Your task to perform on an android device: allow cookies in the chrome app Image 0: 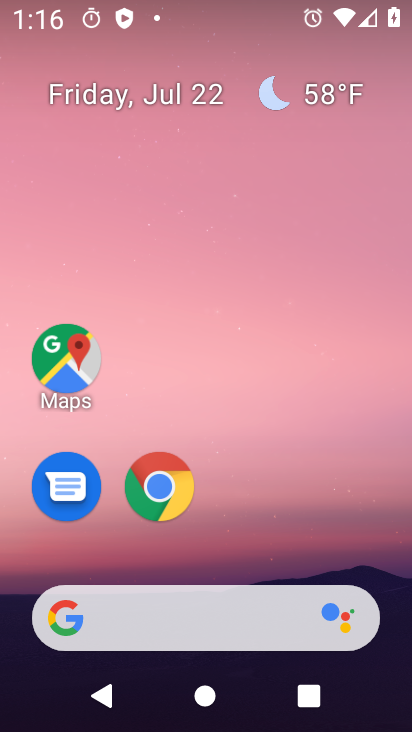
Step 0: drag from (320, 549) to (342, 88)
Your task to perform on an android device: allow cookies in the chrome app Image 1: 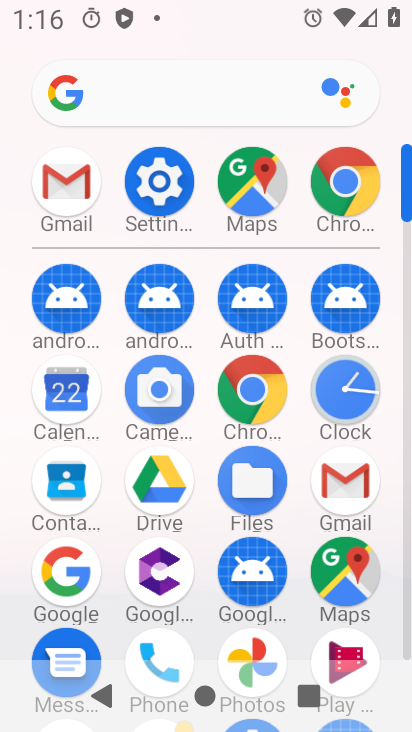
Step 1: click (265, 387)
Your task to perform on an android device: allow cookies in the chrome app Image 2: 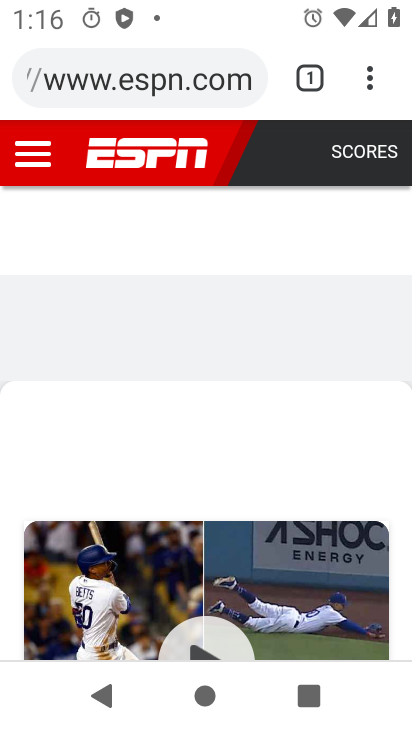
Step 2: click (371, 86)
Your task to perform on an android device: allow cookies in the chrome app Image 3: 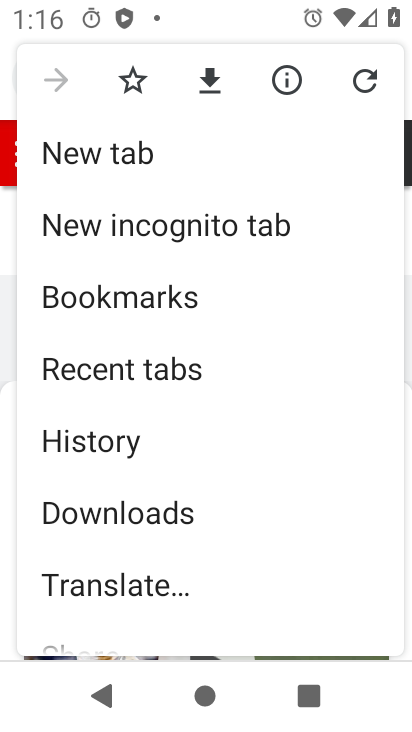
Step 3: drag from (297, 403) to (297, 350)
Your task to perform on an android device: allow cookies in the chrome app Image 4: 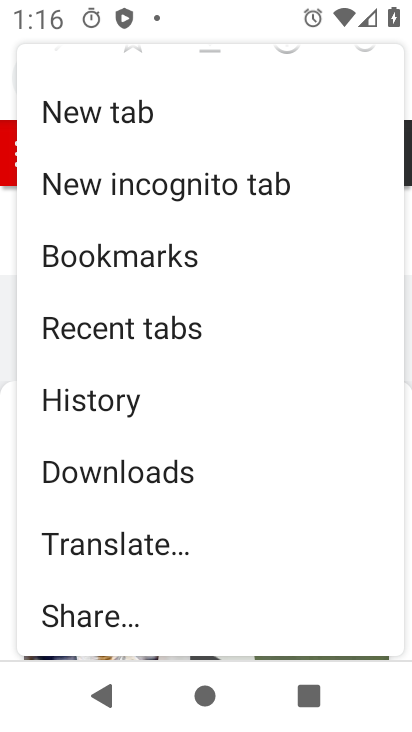
Step 4: drag from (293, 482) to (293, 343)
Your task to perform on an android device: allow cookies in the chrome app Image 5: 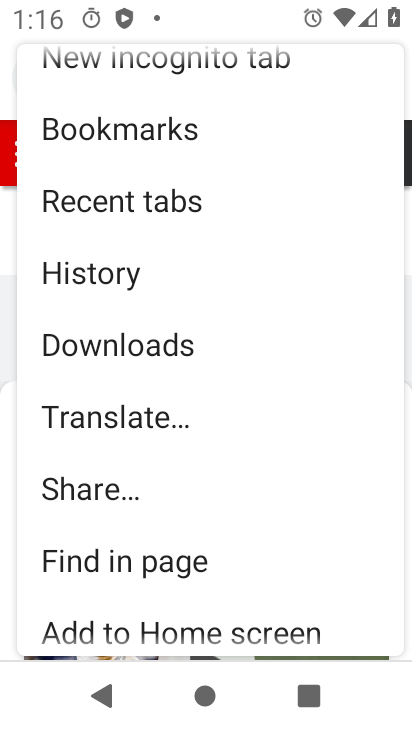
Step 5: drag from (282, 433) to (283, 346)
Your task to perform on an android device: allow cookies in the chrome app Image 6: 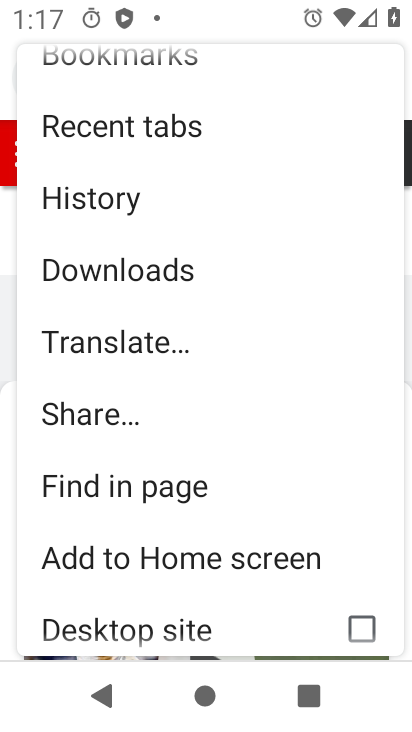
Step 6: drag from (289, 438) to (303, 323)
Your task to perform on an android device: allow cookies in the chrome app Image 7: 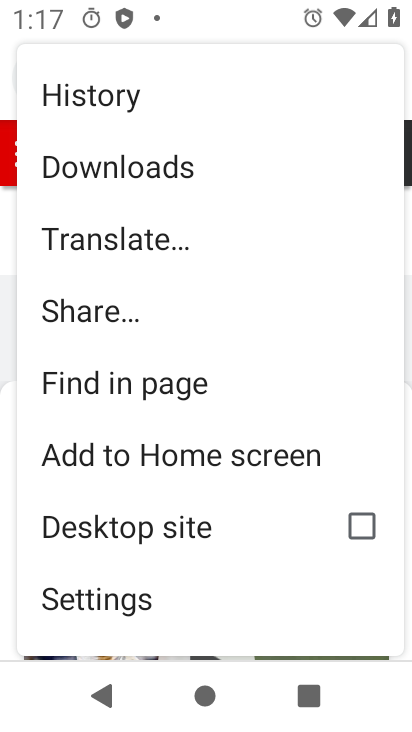
Step 7: drag from (302, 504) to (302, 305)
Your task to perform on an android device: allow cookies in the chrome app Image 8: 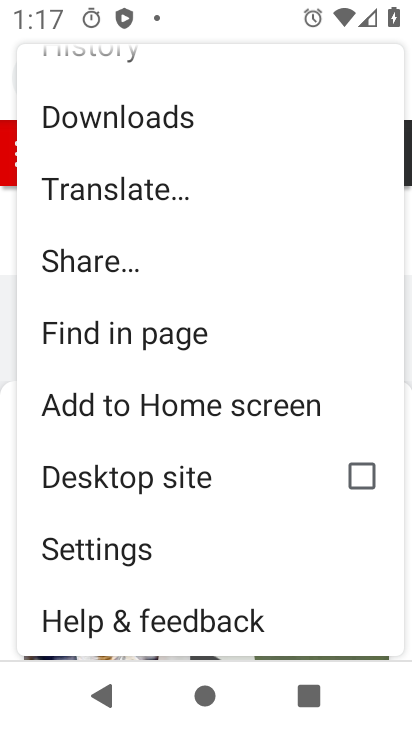
Step 8: click (237, 550)
Your task to perform on an android device: allow cookies in the chrome app Image 9: 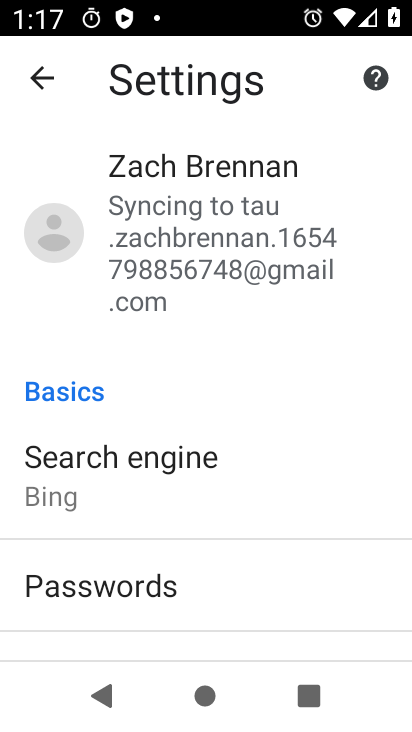
Step 9: drag from (273, 549) to (289, 451)
Your task to perform on an android device: allow cookies in the chrome app Image 10: 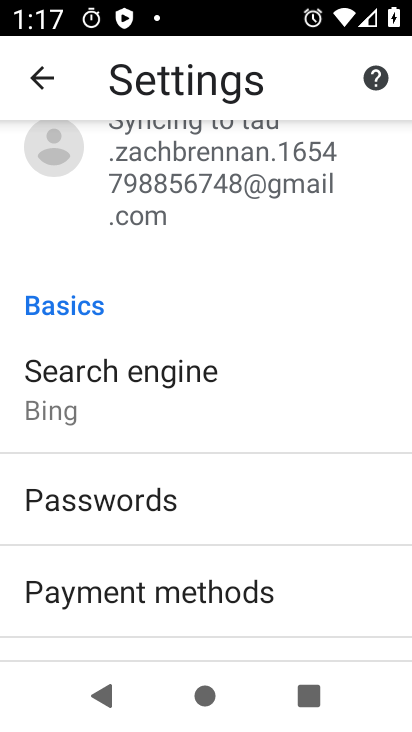
Step 10: drag from (333, 567) to (339, 420)
Your task to perform on an android device: allow cookies in the chrome app Image 11: 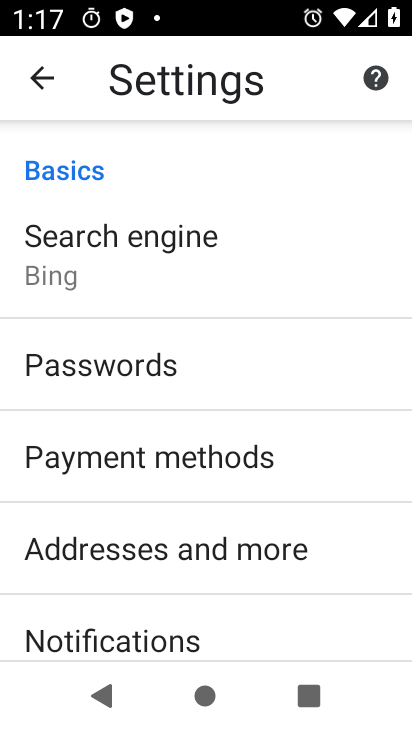
Step 11: drag from (350, 548) to (351, 463)
Your task to perform on an android device: allow cookies in the chrome app Image 12: 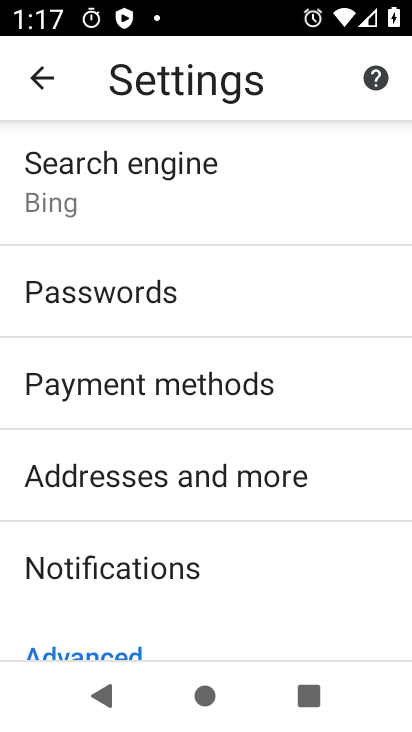
Step 12: drag from (350, 547) to (353, 408)
Your task to perform on an android device: allow cookies in the chrome app Image 13: 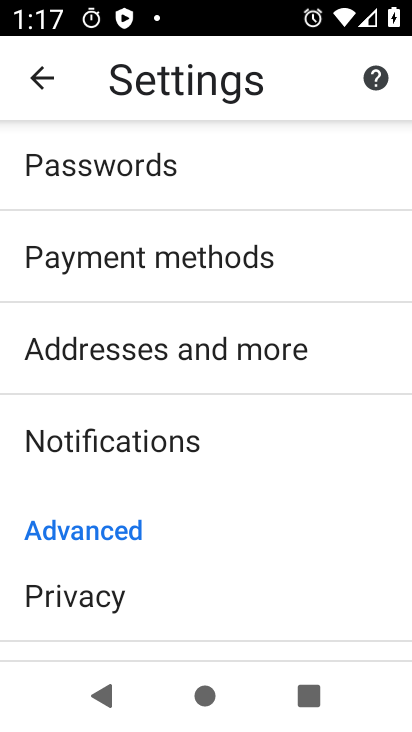
Step 13: drag from (353, 515) to (355, 378)
Your task to perform on an android device: allow cookies in the chrome app Image 14: 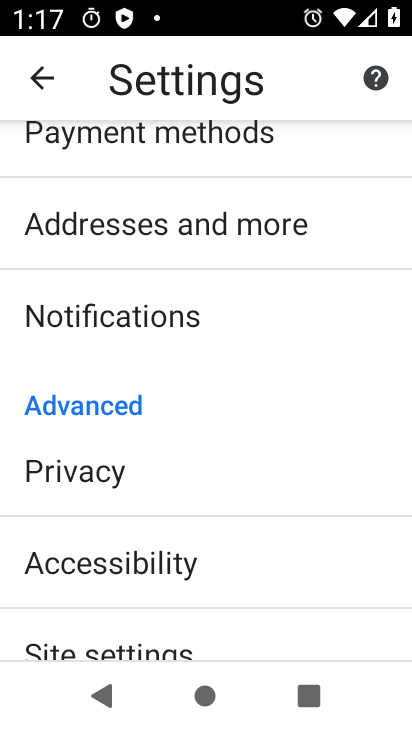
Step 14: drag from (348, 498) to (343, 374)
Your task to perform on an android device: allow cookies in the chrome app Image 15: 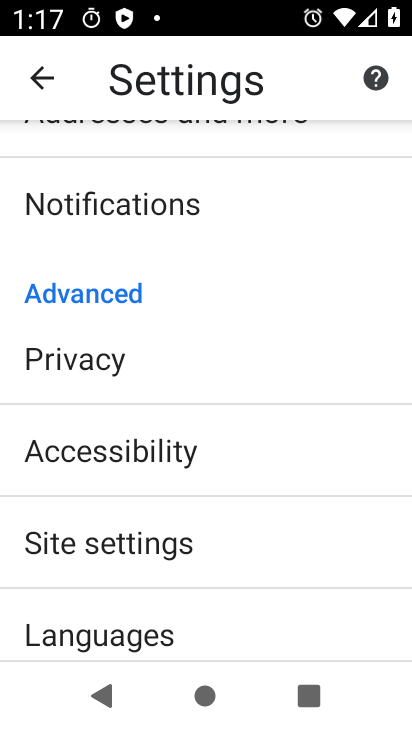
Step 15: click (340, 536)
Your task to perform on an android device: allow cookies in the chrome app Image 16: 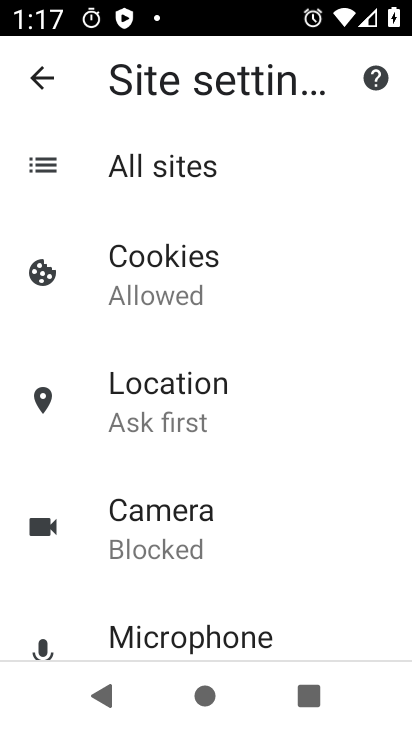
Step 16: click (279, 285)
Your task to perform on an android device: allow cookies in the chrome app Image 17: 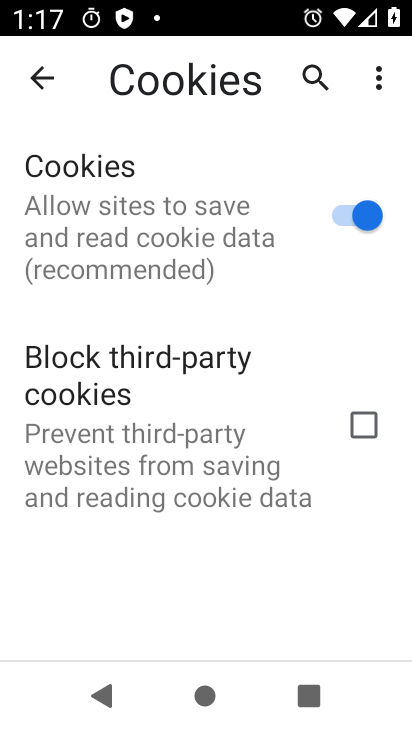
Step 17: task complete